Your task to perform on an android device: allow cookies in the chrome app Image 0: 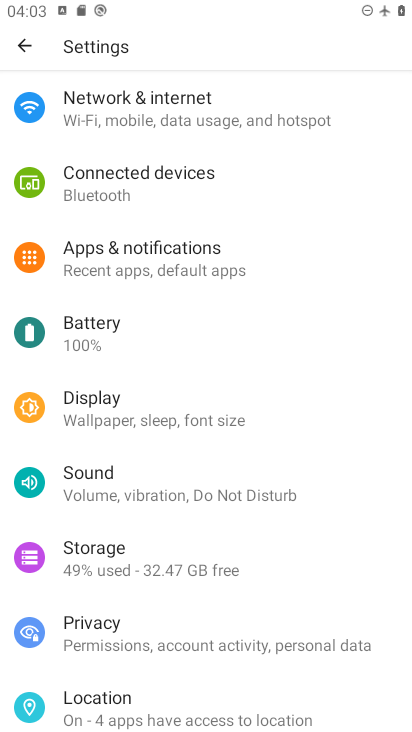
Step 0: press home button
Your task to perform on an android device: allow cookies in the chrome app Image 1: 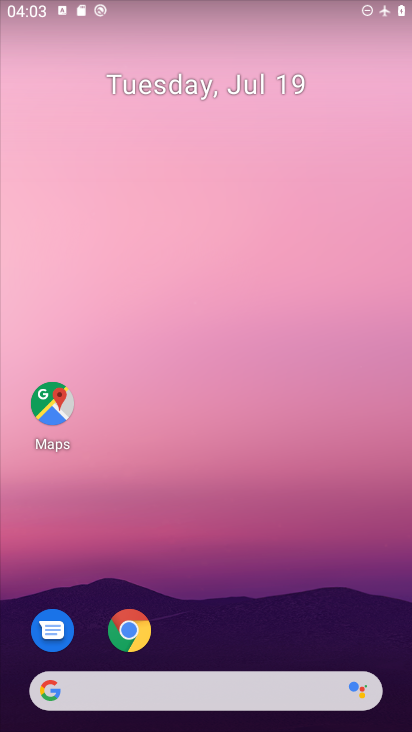
Step 1: click (129, 628)
Your task to perform on an android device: allow cookies in the chrome app Image 2: 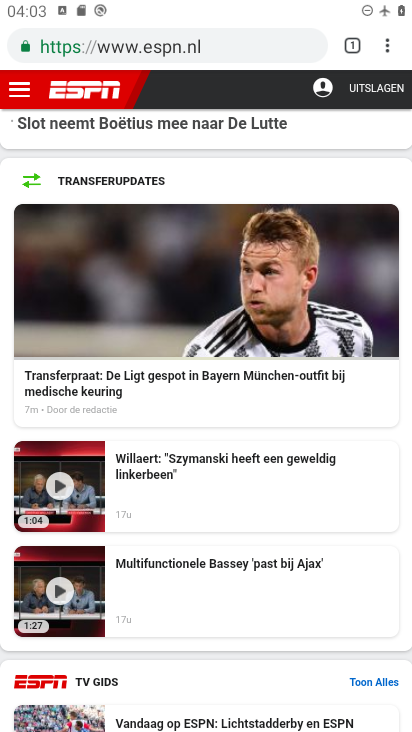
Step 2: click (388, 49)
Your task to perform on an android device: allow cookies in the chrome app Image 3: 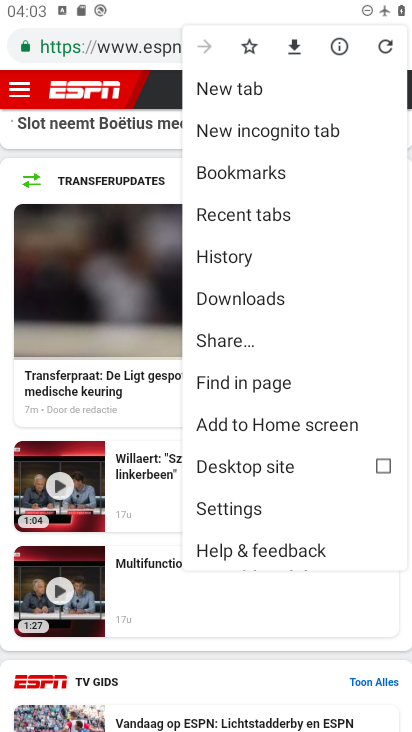
Step 3: click (247, 509)
Your task to perform on an android device: allow cookies in the chrome app Image 4: 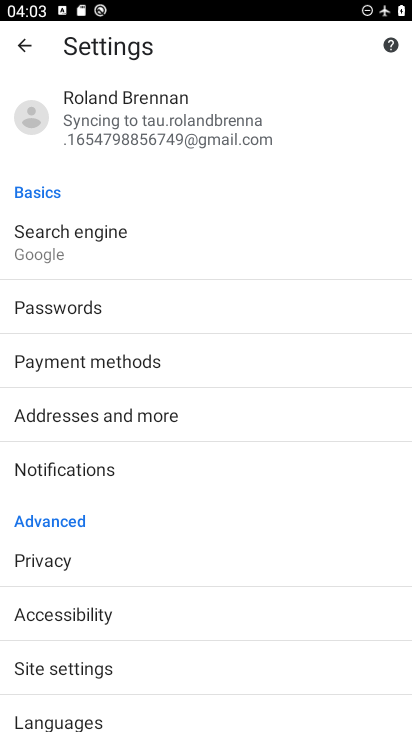
Step 4: click (76, 673)
Your task to perform on an android device: allow cookies in the chrome app Image 5: 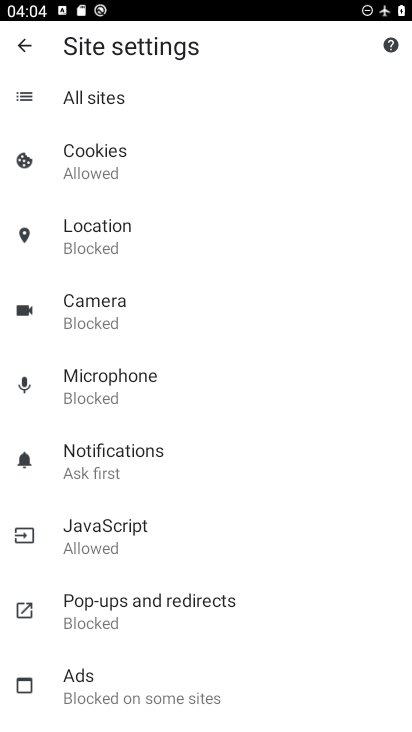
Step 5: click (91, 156)
Your task to perform on an android device: allow cookies in the chrome app Image 6: 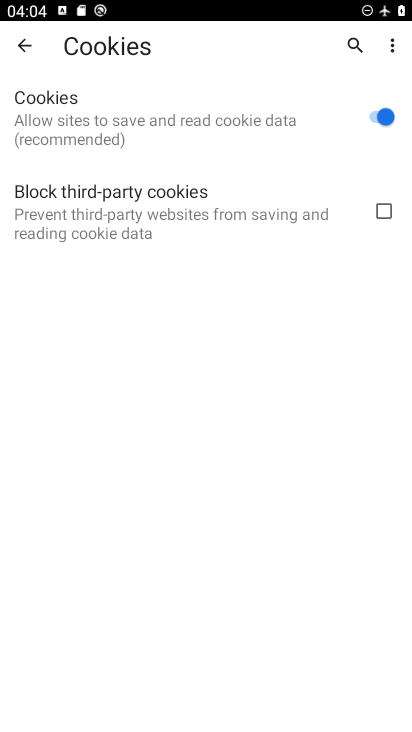
Step 6: task complete